Your task to perform on an android device: Go to calendar. Show me events next week Image 0: 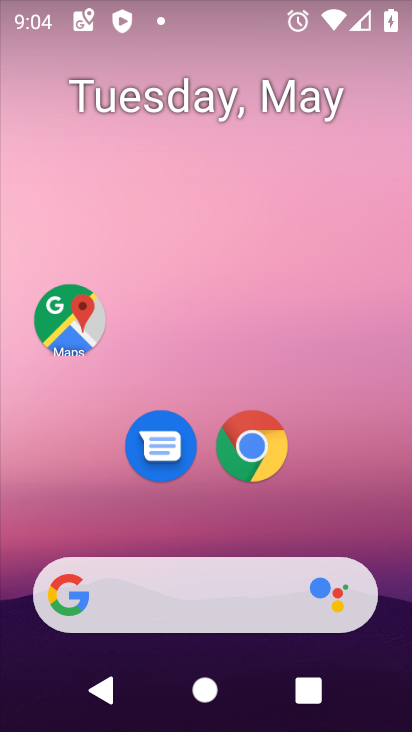
Step 0: drag from (321, 533) to (321, 0)
Your task to perform on an android device: Go to calendar. Show me events next week Image 1: 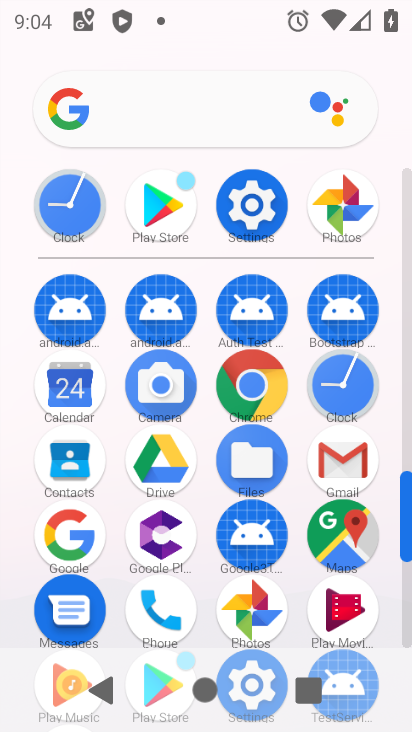
Step 1: click (79, 385)
Your task to perform on an android device: Go to calendar. Show me events next week Image 2: 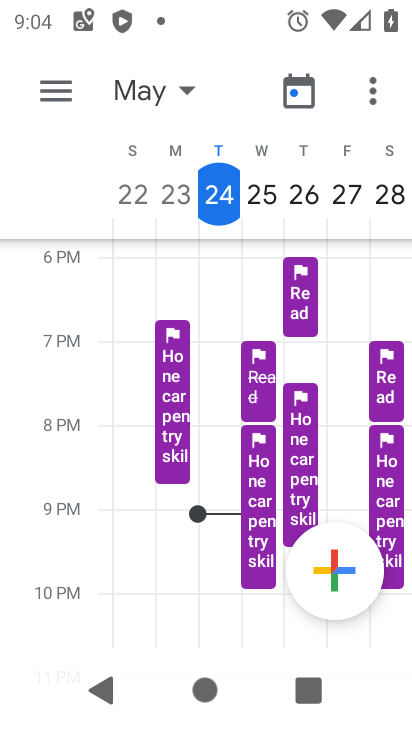
Step 2: drag from (311, 402) to (1, 458)
Your task to perform on an android device: Go to calendar. Show me events next week Image 3: 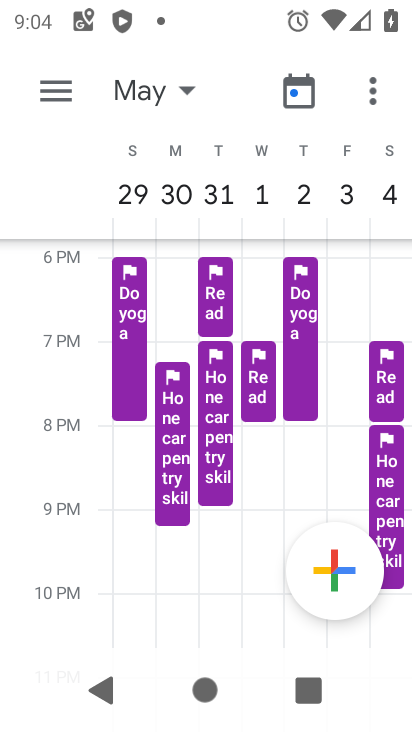
Step 3: drag from (231, 384) to (228, 254)
Your task to perform on an android device: Go to calendar. Show me events next week Image 4: 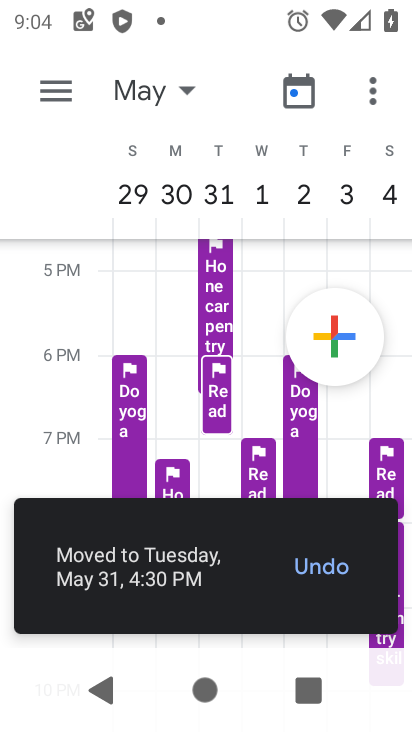
Step 4: click (327, 562)
Your task to perform on an android device: Go to calendar. Show me events next week Image 5: 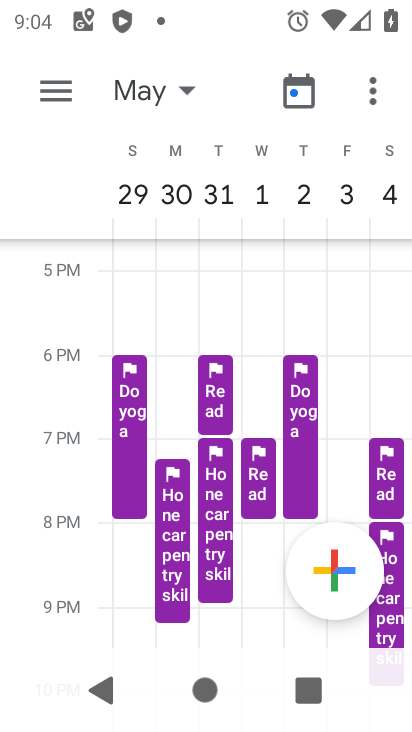
Step 5: task complete